Your task to perform on an android device: Open Google Chrome and open the bookmarks view Image 0: 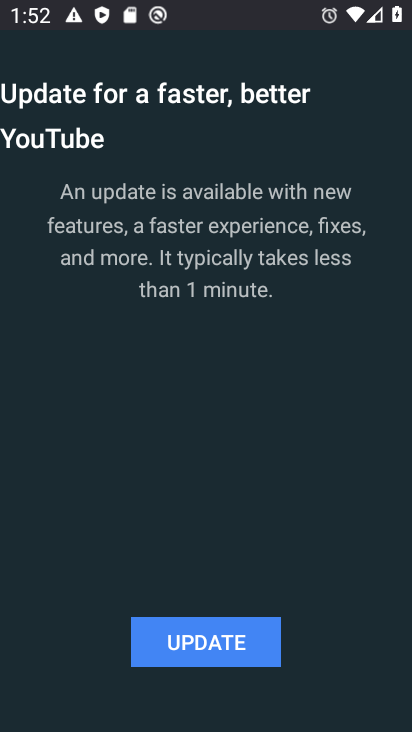
Step 0: press home button
Your task to perform on an android device: Open Google Chrome and open the bookmarks view Image 1: 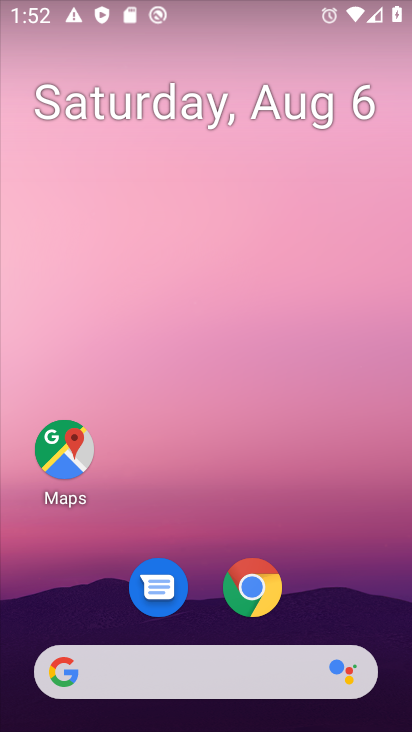
Step 1: click (255, 586)
Your task to perform on an android device: Open Google Chrome and open the bookmarks view Image 2: 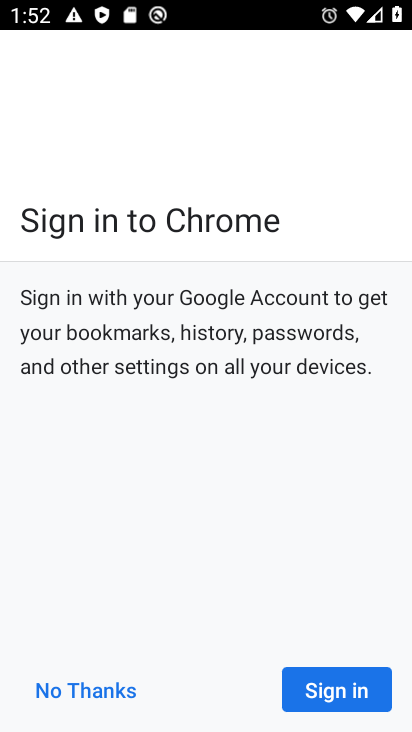
Step 2: click (308, 686)
Your task to perform on an android device: Open Google Chrome and open the bookmarks view Image 3: 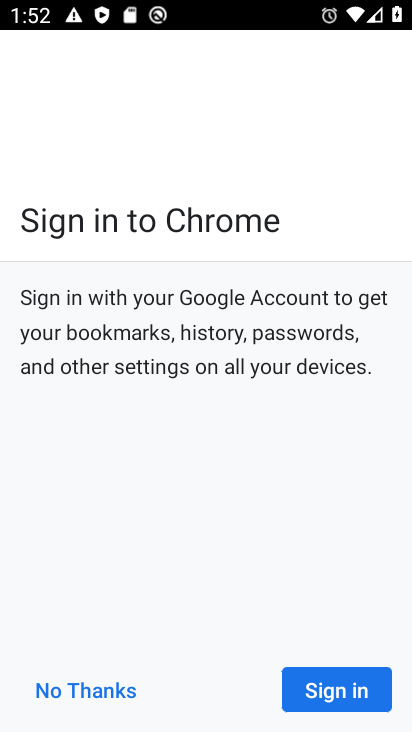
Step 3: click (125, 686)
Your task to perform on an android device: Open Google Chrome and open the bookmarks view Image 4: 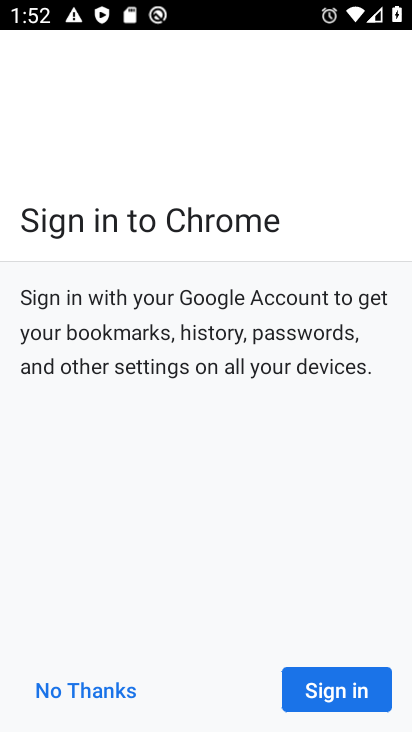
Step 4: click (104, 686)
Your task to perform on an android device: Open Google Chrome and open the bookmarks view Image 5: 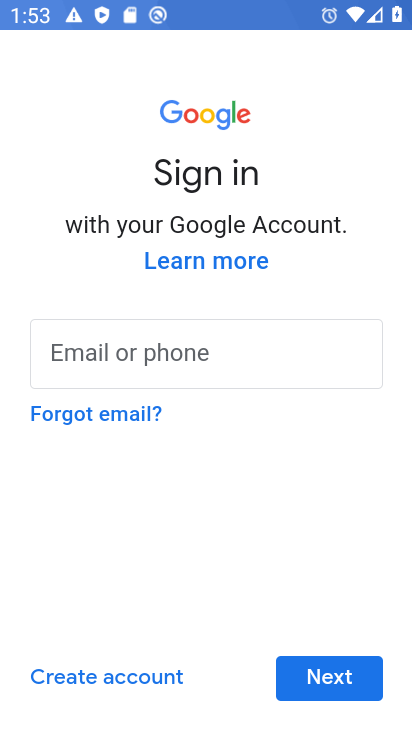
Step 5: press back button
Your task to perform on an android device: Open Google Chrome and open the bookmarks view Image 6: 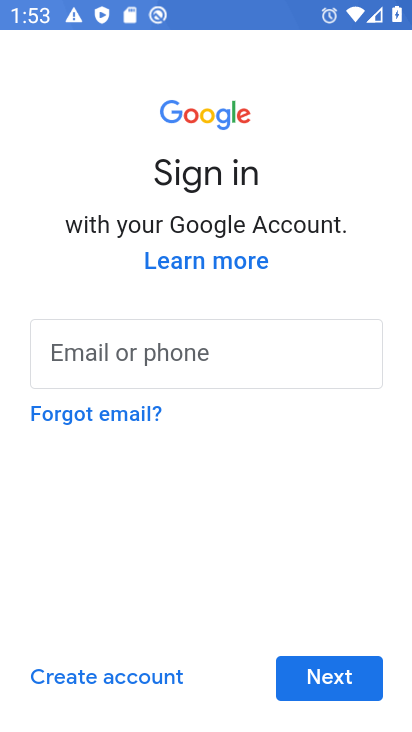
Step 6: press back button
Your task to perform on an android device: Open Google Chrome and open the bookmarks view Image 7: 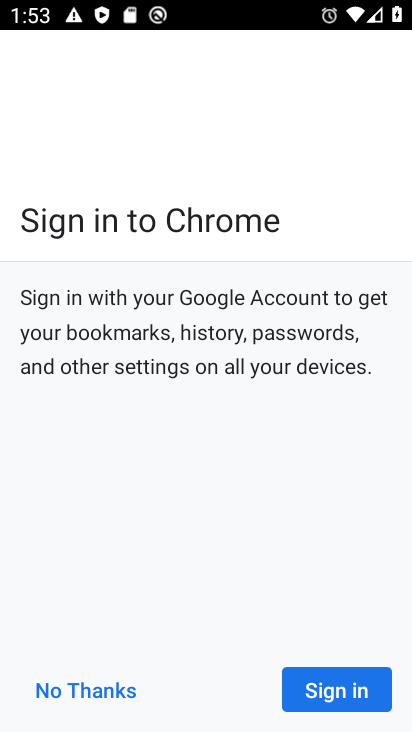
Step 7: click (93, 681)
Your task to perform on an android device: Open Google Chrome and open the bookmarks view Image 8: 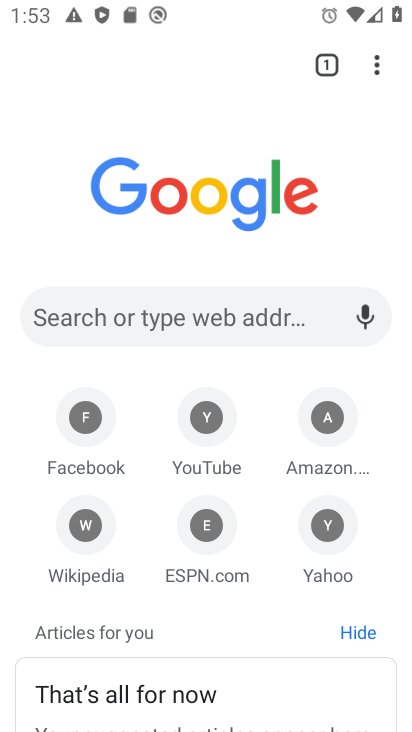
Step 8: click (374, 64)
Your task to perform on an android device: Open Google Chrome and open the bookmarks view Image 9: 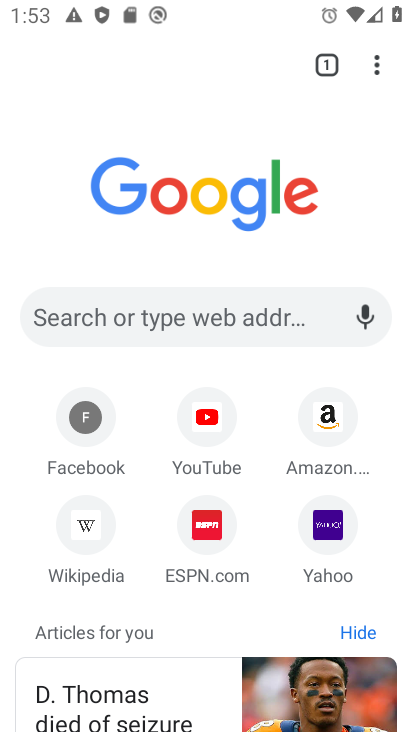
Step 9: click (379, 61)
Your task to perform on an android device: Open Google Chrome and open the bookmarks view Image 10: 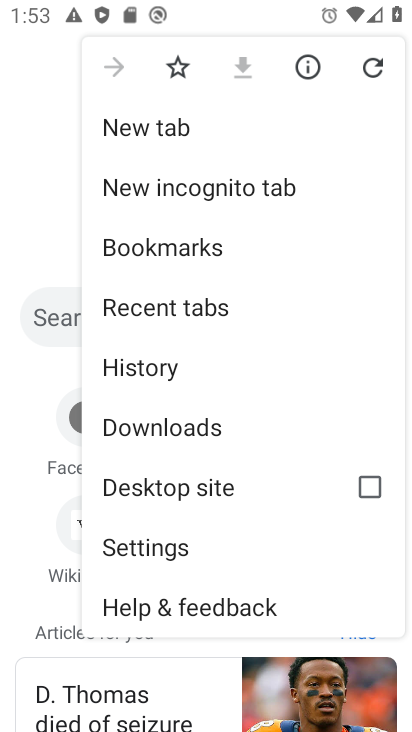
Step 10: click (168, 257)
Your task to perform on an android device: Open Google Chrome and open the bookmarks view Image 11: 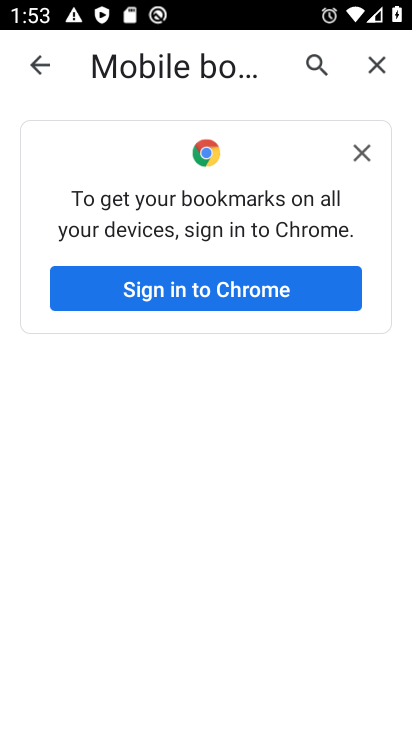
Step 11: task complete